Your task to perform on an android device: Go to accessibility settings Image 0: 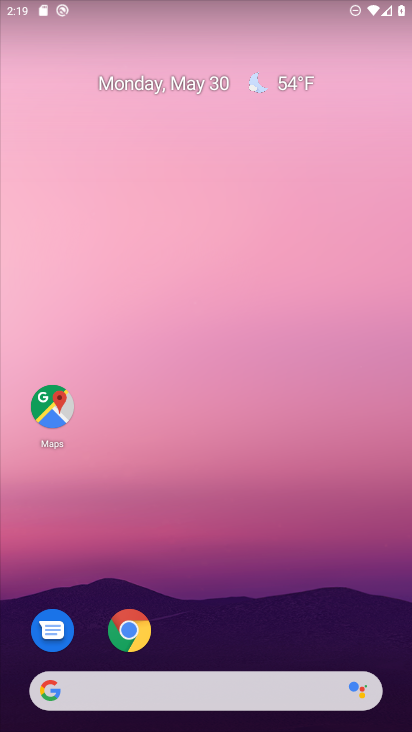
Step 0: drag from (197, 692) to (177, 119)
Your task to perform on an android device: Go to accessibility settings Image 1: 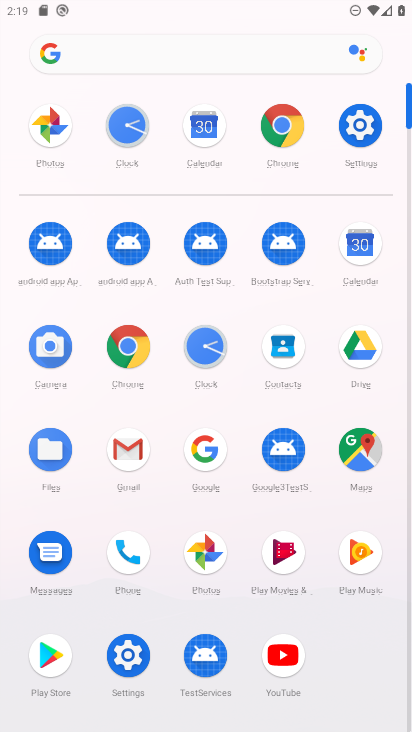
Step 1: click (147, 658)
Your task to perform on an android device: Go to accessibility settings Image 2: 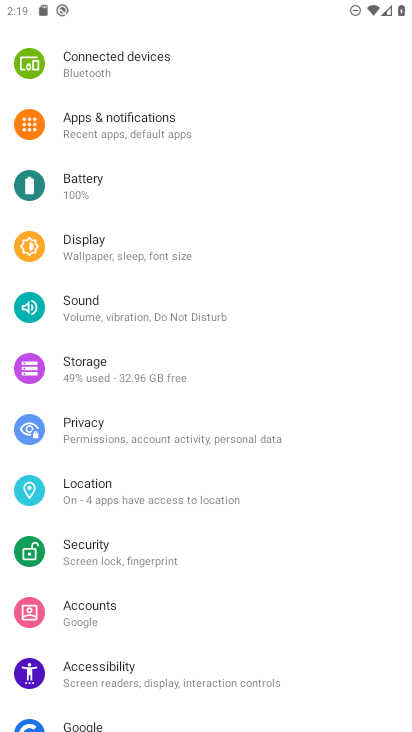
Step 2: click (100, 671)
Your task to perform on an android device: Go to accessibility settings Image 3: 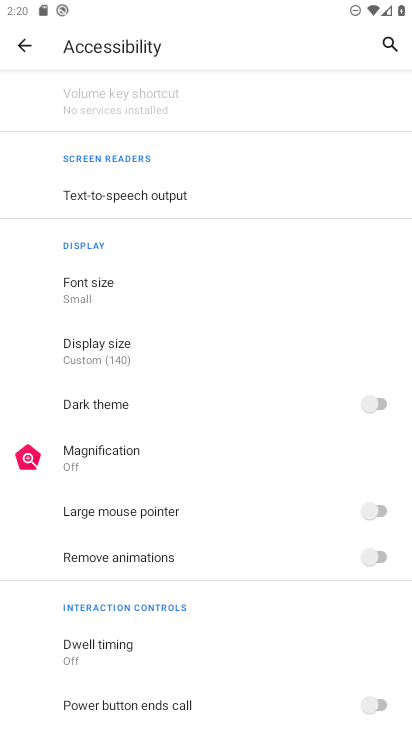
Step 3: task complete